Your task to perform on an android device: turn on bluetooth scan Image 0: 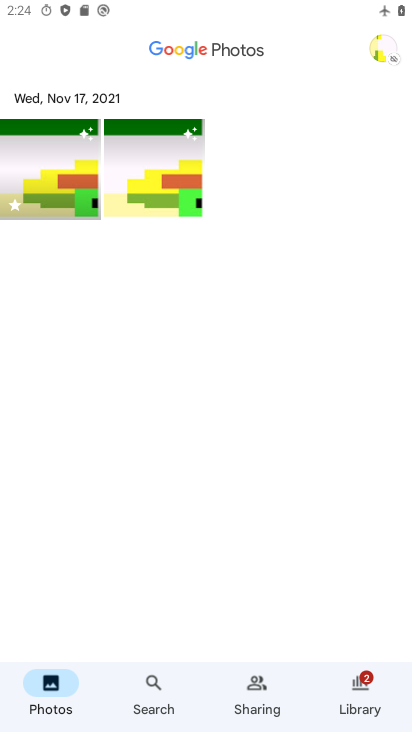
Step 0: press home button
Your task to perform on an android device: turn on bluetooth scan Image 1: 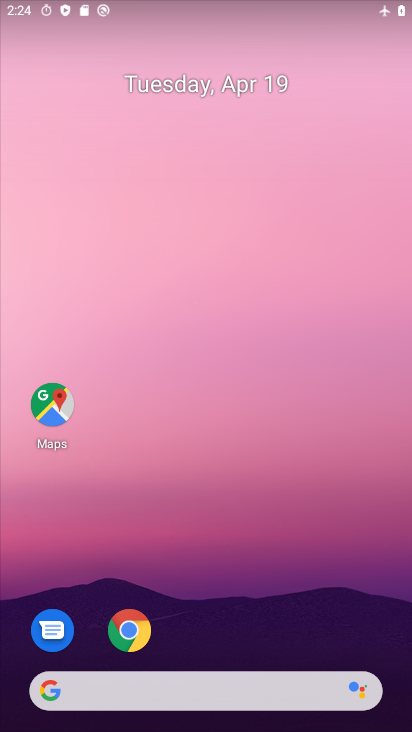
Step 1: drag from (211, 651) to (192, 92)
Your task to perform on an android device: turn on bluetooth scan Image 2: 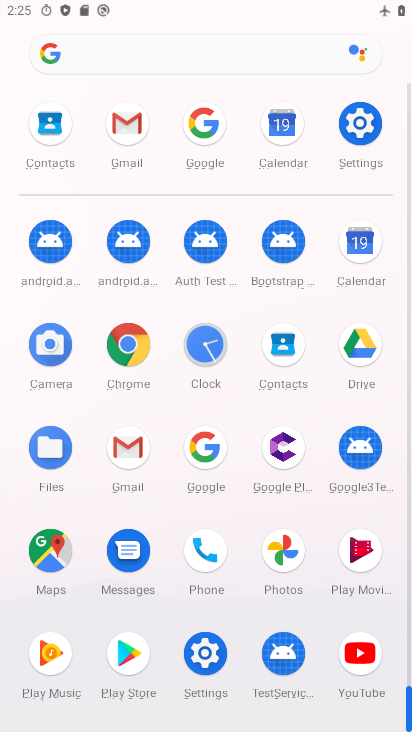
Step 2: click (355, 119)
Your task to perform on an android device: turn on bluetooth scan Image 3: 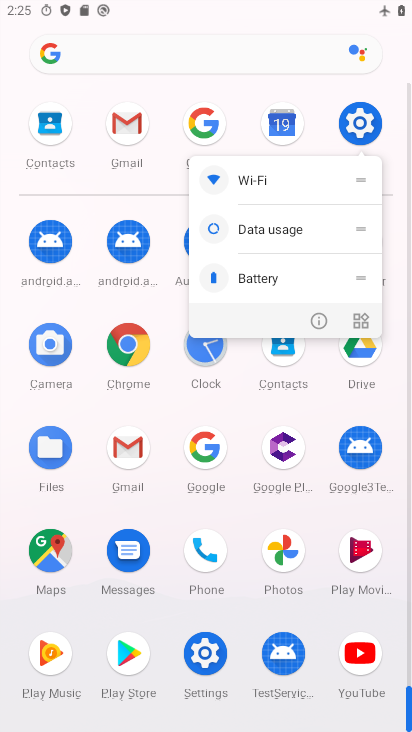
Step 3: click (358, 118)
Your task to perform on an android device: turn on bluetooth scan Image 4: 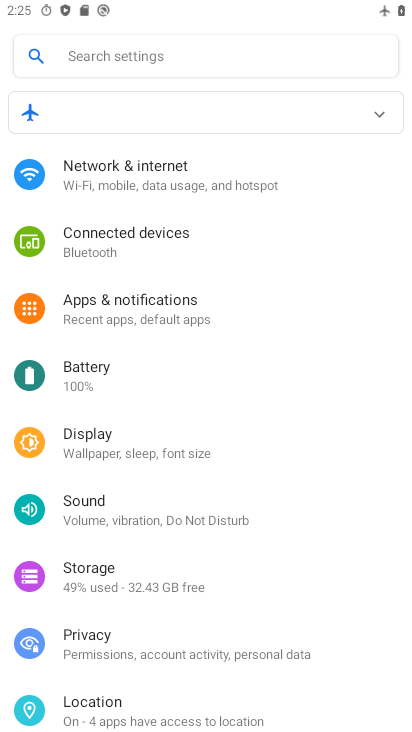
Step 4: click (166, 715)
Your task to perform on an android device: turn on bluetooth scan Image 5: 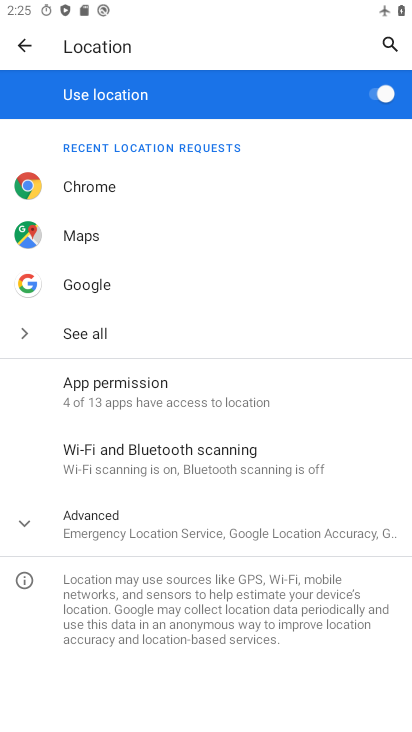
Step 5: click (245, 450)
Your task to perform on an android device: turn on bluetooth scan Image 6: 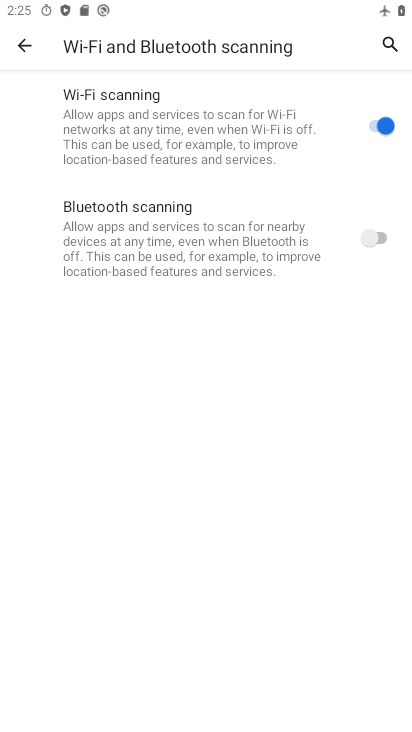
Step 6: click (385, 233)
Your task to perform on an android device: turn on bluetooth scan Image 7: 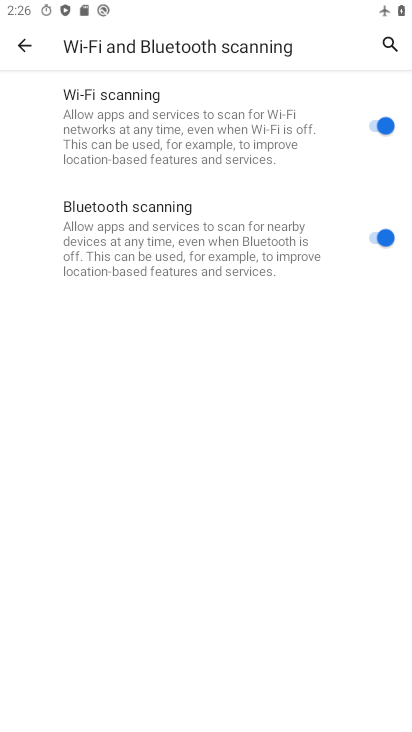
Step 7: task complete